Your task to perform on an android device: turn notification dots off Image 0: 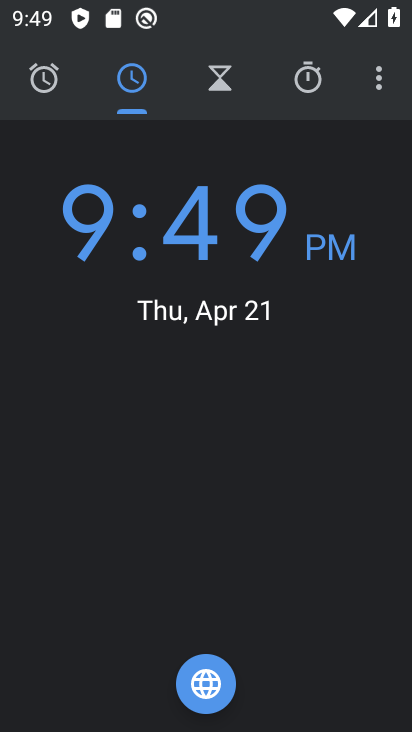
Step 0: press back button
Your task to perform on an android device: turn notification dots off Image 1: 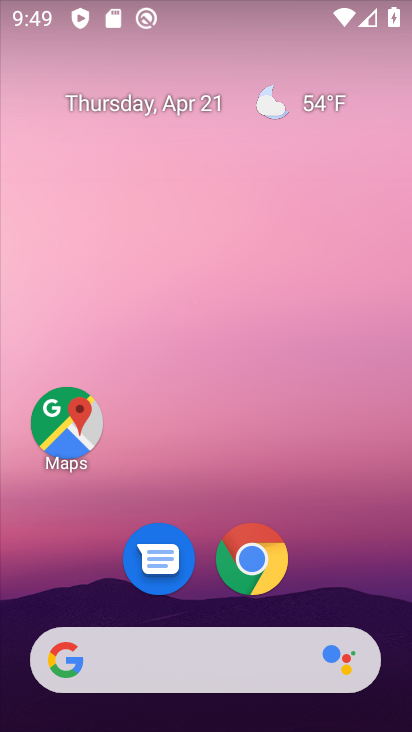
Step 1: drag from (130, 557) to (296, 48)
Your task to perform on an android device: turn notification dots off Image 2: 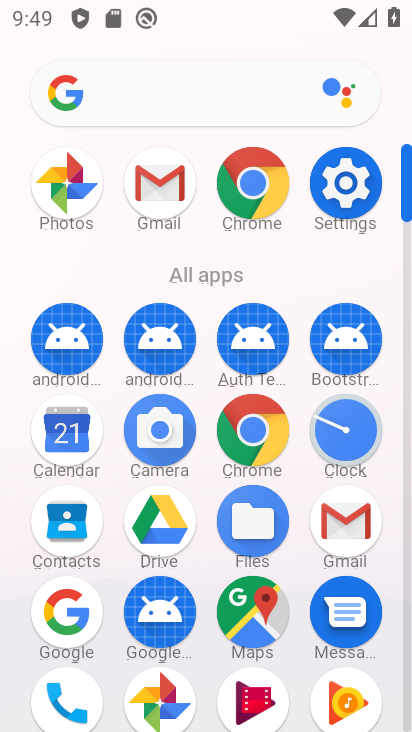
Step 2: click (336, 184)
Your task to perform on an android device: turn notification dots off Image 3: 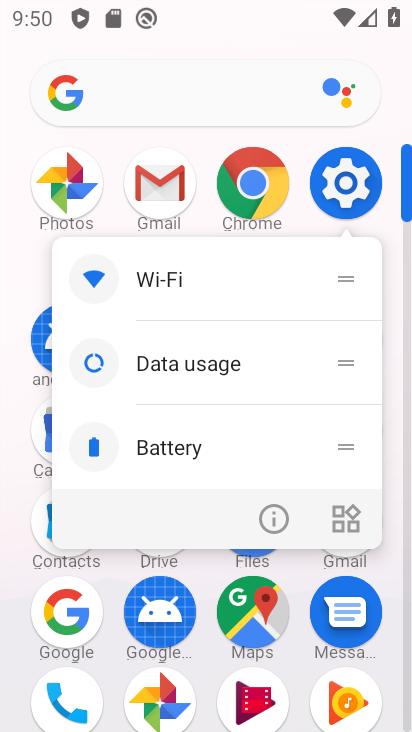
Step 3: click (355, 194)
Your task to perform on an android device: turn notification dots off Image 4: 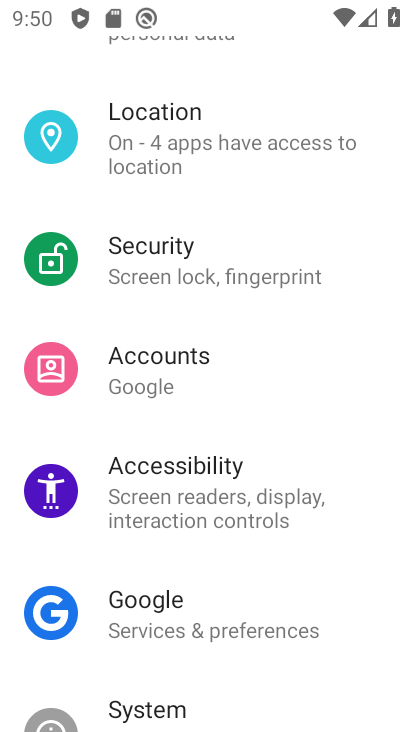
Step 4: drag from (250, 120) to (215, 678)
Your task to perform on an android device: turn notification dots off Image 5: 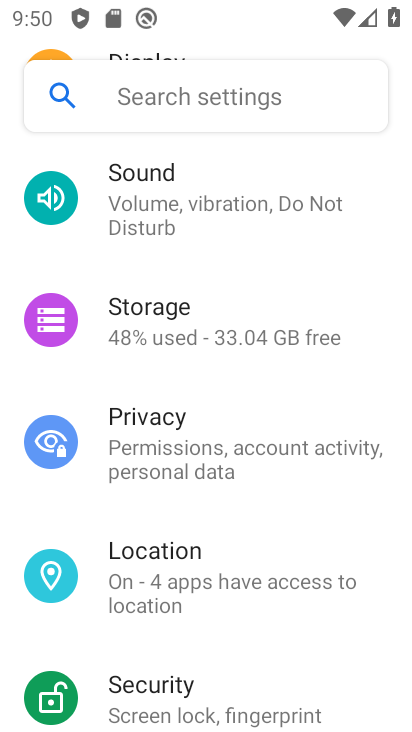
Step 5: drag from (274, 282) to (249, 674)
Your task to perform on an android device: turn notification dots off Image 6: 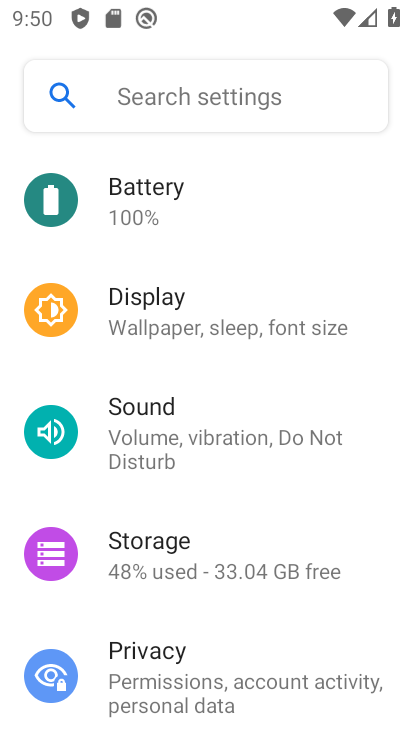
Step 6: drag from (249, 216) to (195, 722)
Your task to perform on an android device: turn notification dots off Image 7: 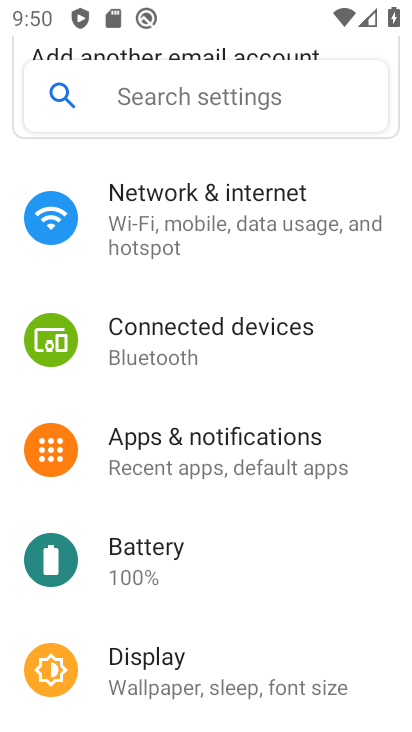
Step 7: click (274, 460)
Your task to perform on an android device: turn notification dots off Image 8: 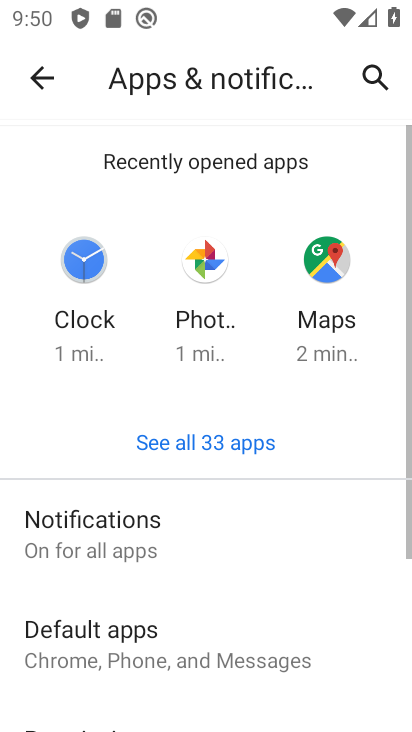
Step 8: drag from (230, 638) to (303, 255)
Your task to perform on an android device: turn notification dots off Image 9: 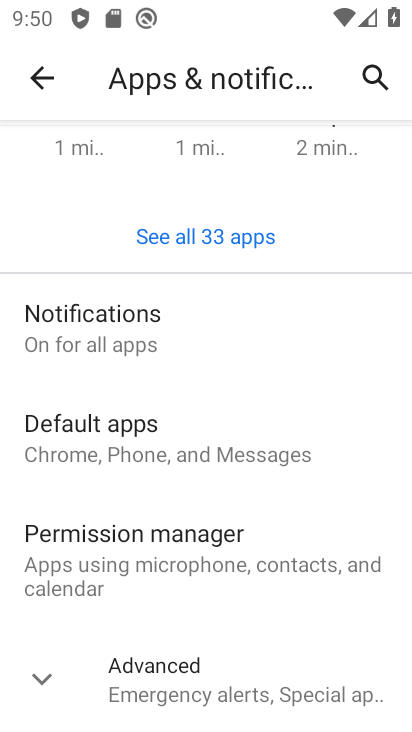
Step 9: click (160, 321)
Your task to perform on an android device: turn notification dots off Image 10: 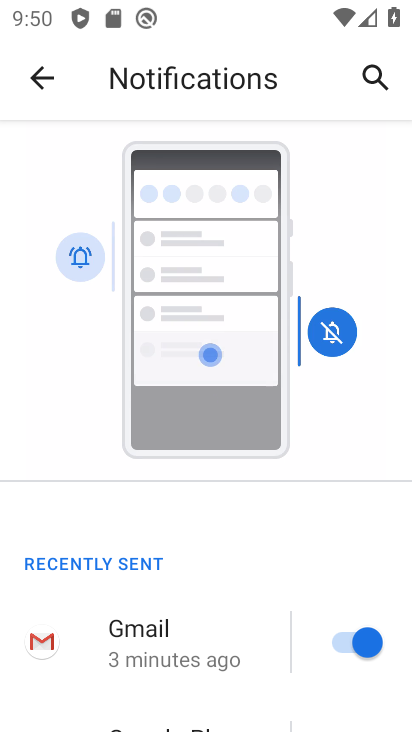
Step 10: drag from (181, 656) to (312, 179)
Your task to perform on an android device: turn notification dots off Image 11: 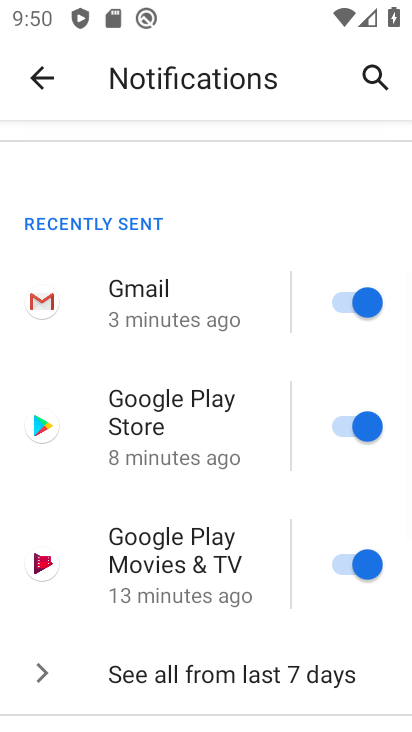
Step 11: drag from (212, 500) to (283, 118)
Your task to perform on an android device: turn notification dots off Image 12: 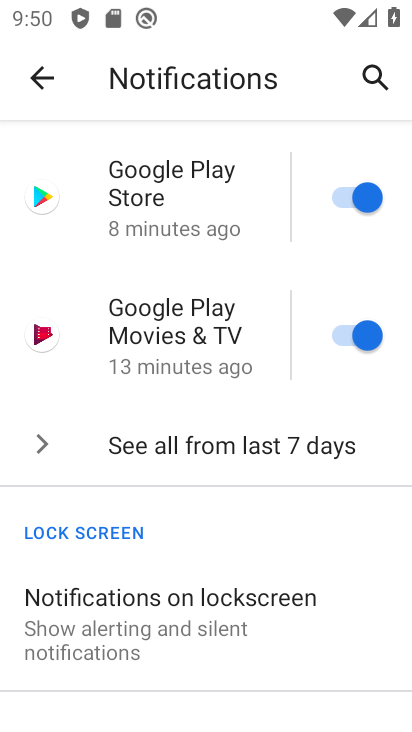
Step 12: drag from (184, 666) to (332, 125)
Your task to perform on an android device: turn notification dots off Image 13: 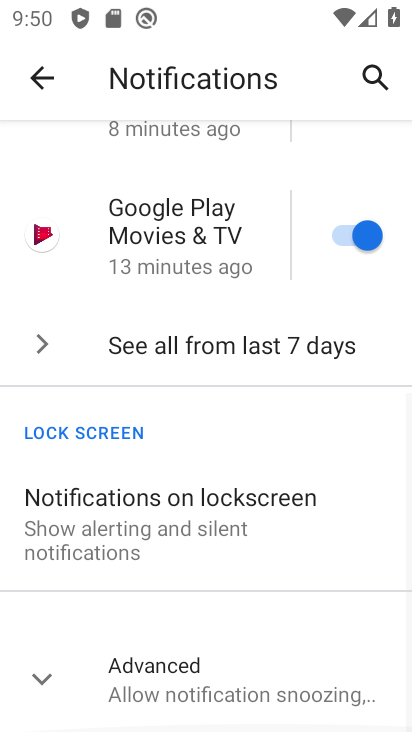
Step 13: click (130, 707)
Your task to perform on an android device: turn notification dots off Image 14: 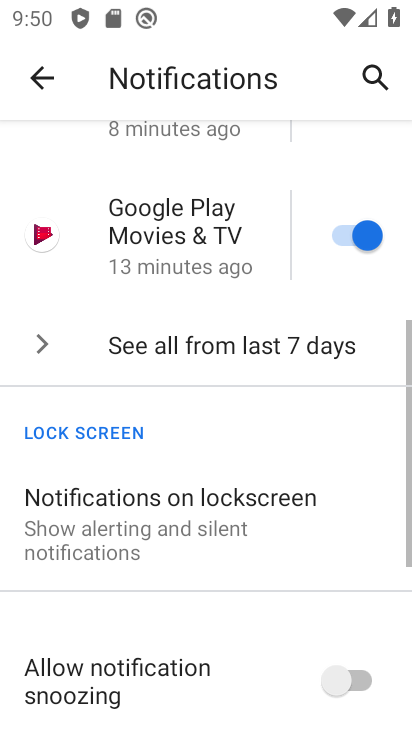
Step 14: drag from (177, 663) to (264, 113)
Your task to perform on an android device: turn notification dots off Image 15: 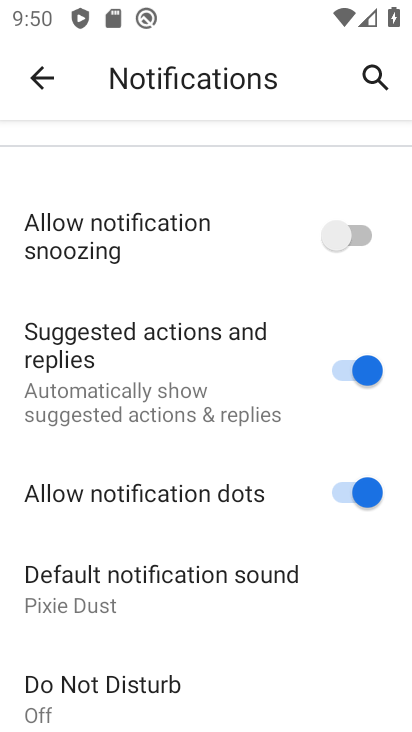
Step 15: click (362, 492)
Your task to perform on an android device: turn notification dots off Image 16: 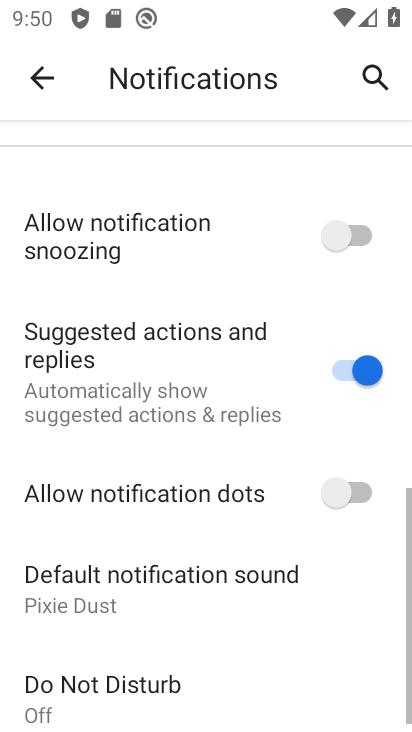
Step 16: task complete